Your task to perform on an android device: change notifications settings Image 0: 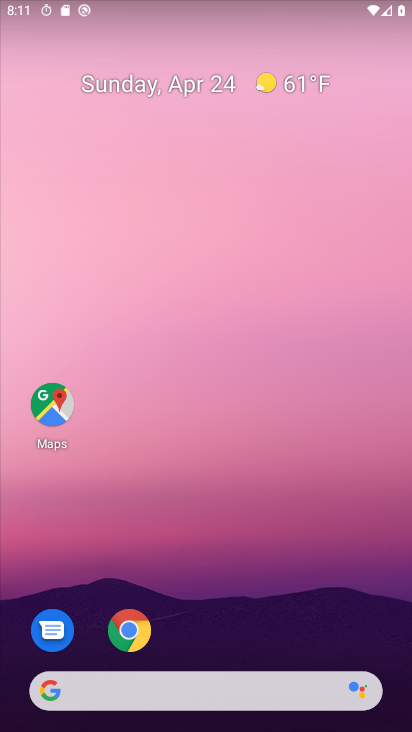
Step 0: drag from (337, 609) to (374, 110)
Your task to perform on an android device: change notifications settings Image 1: 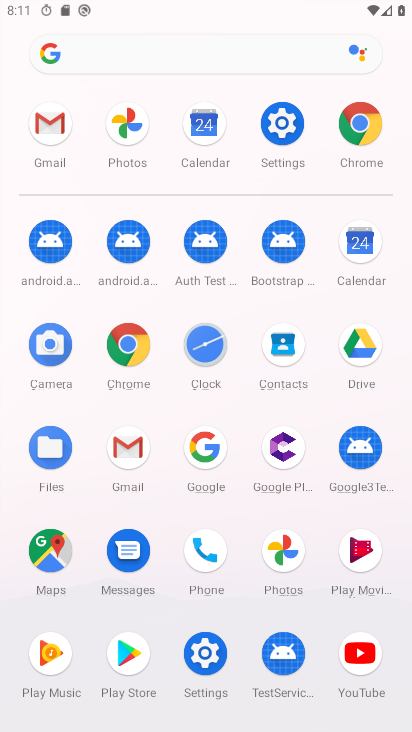
Step 1: click (288, 110)
Your task to perform on an android device: change notifications settings Image 2: 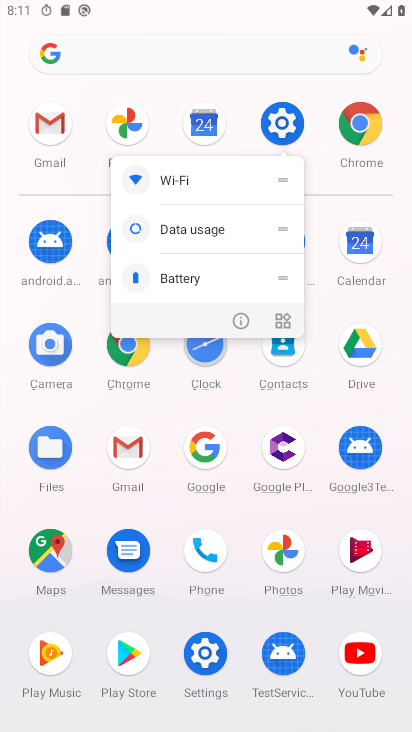
Step 2: click (281, 123)
Your task to perform on an android device: change notifications settings Image 3: 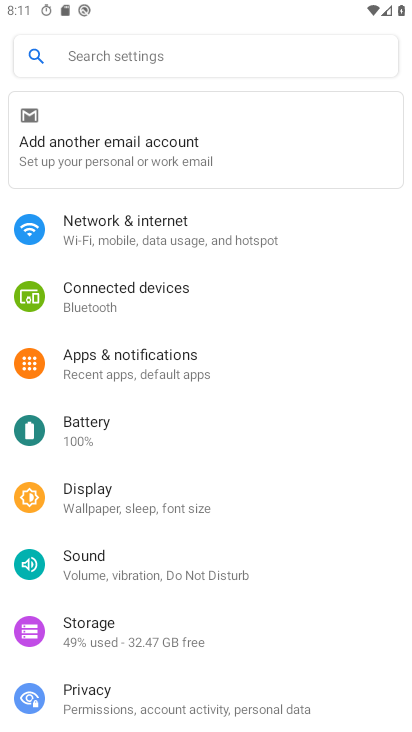
Step 3: drag from (362, 598) to (374, 392)
Your task to perform on an android device: change notifications settings Image 4: 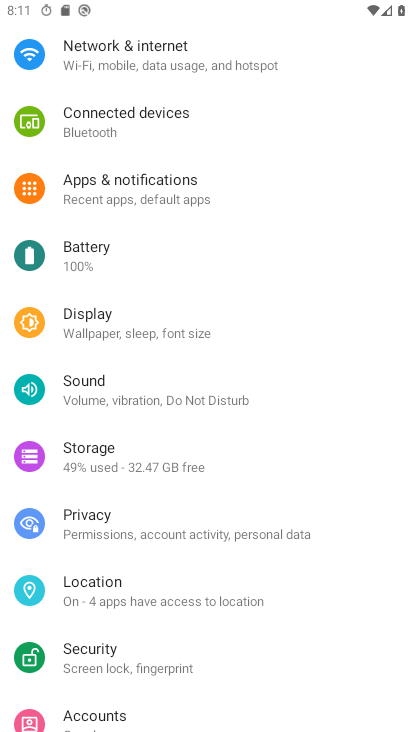
Step 4: drag from (357, 600) to (340, 171)
Your task to perform on an android device: change notifications settings Image 5: 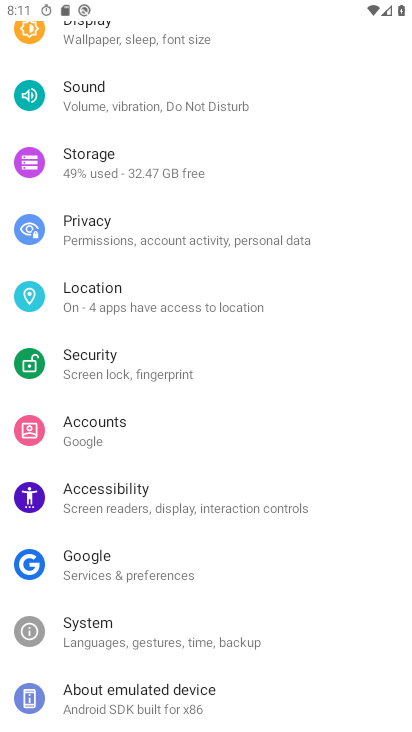
Step 5: drag from (352, 190) to (373, 386)
Your task to perform on an android device: change notifications settings Image 6: 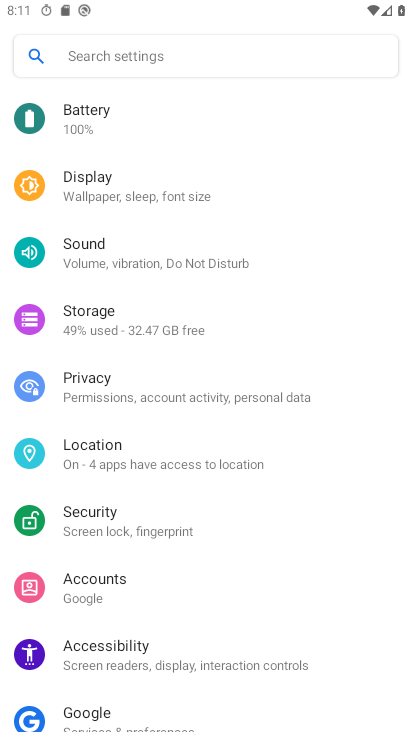
Step 6: drag from (346, 194) to (352, 427)
Your task to perform on an android device: change notifications settings Image 7: 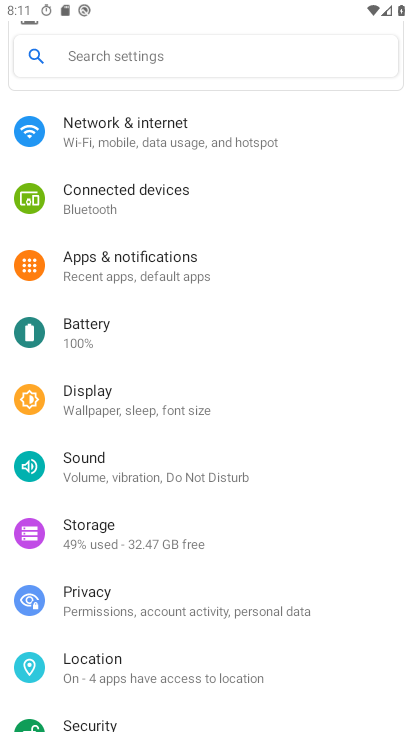
Step 7: drag from (341, 166) to (359, 389)
Your task to perform on an android device: change notifications settings Image 8: 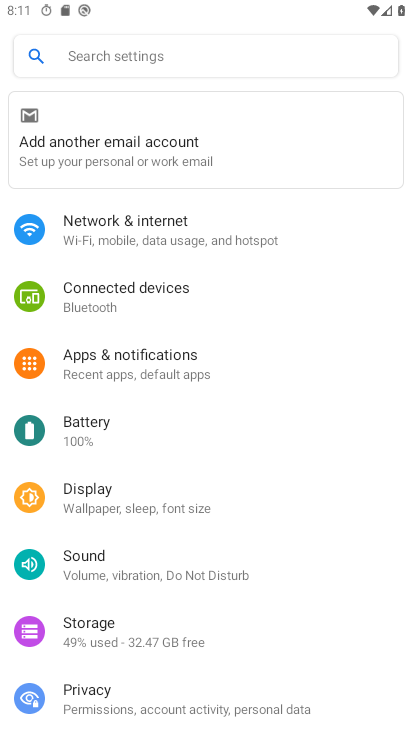
Step 8: click (204, 368)
Your task to perform on an android device: change notifications settings Image 9: 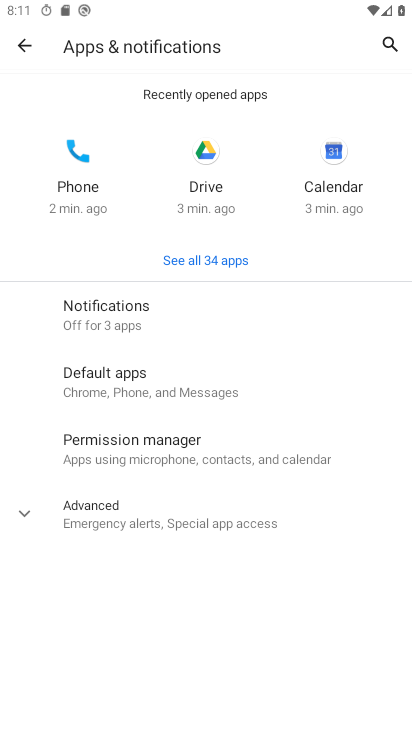
Step 9: click (133, 324)
Your task to perform on an android device: change notifications settings Image 10: 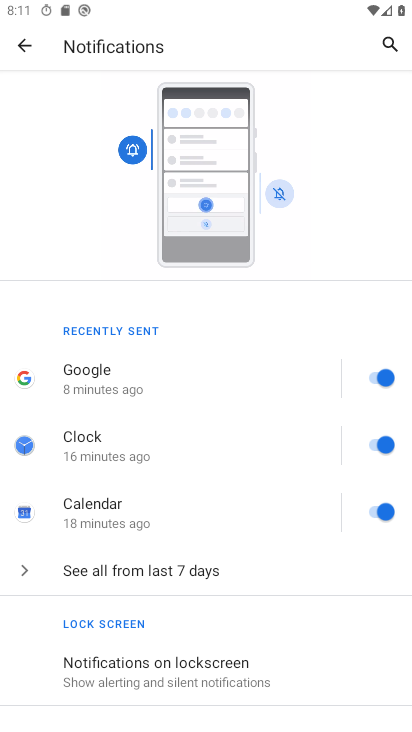
Step 10: drag from (297, 616) to (303, 469)
Your task to perform on an android device: change notifications settings Image 11: 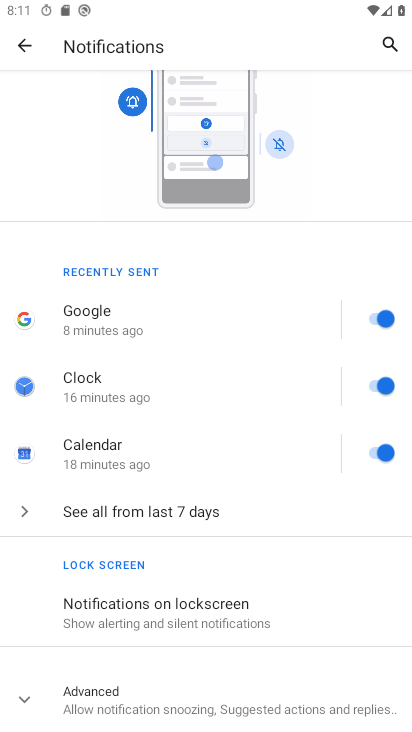
Step 11: click (392, 452)
Your task to perform on an android device: change notifications settings Image 12: 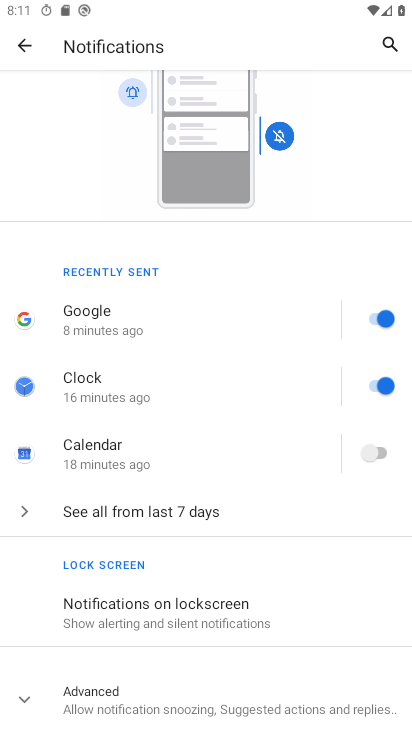
Step 12: click (372, 386)
Your task to perform on an android device: change notifications settings Image 13: 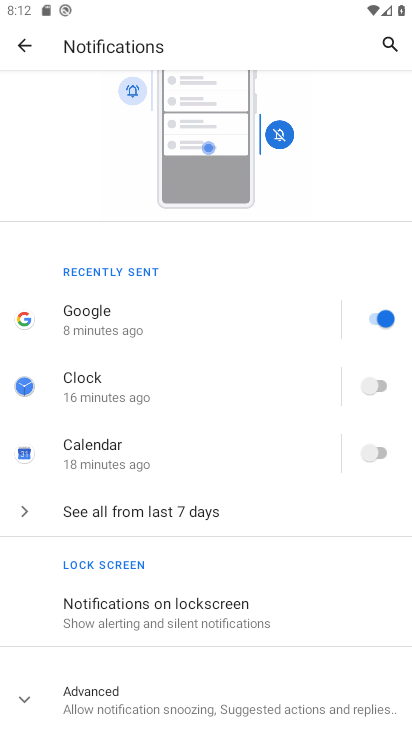
Step 13: click (384, 322)
Your task to perform on an android device: change notifications settings Image 14: 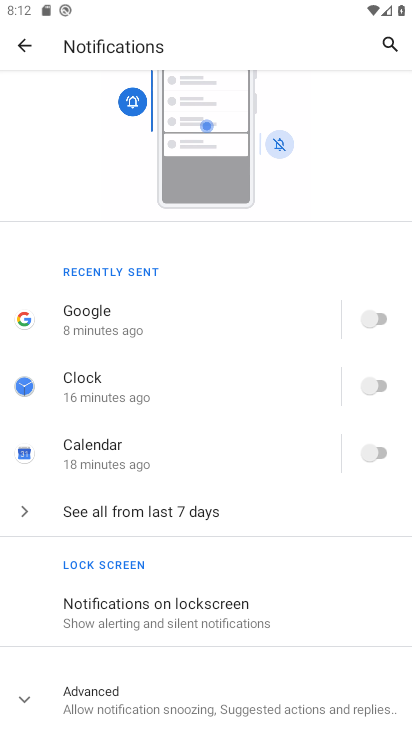
Step 14: task complete